Your task to perform on an android device: Open Google Chrome and open the bookmarks view Image 0: 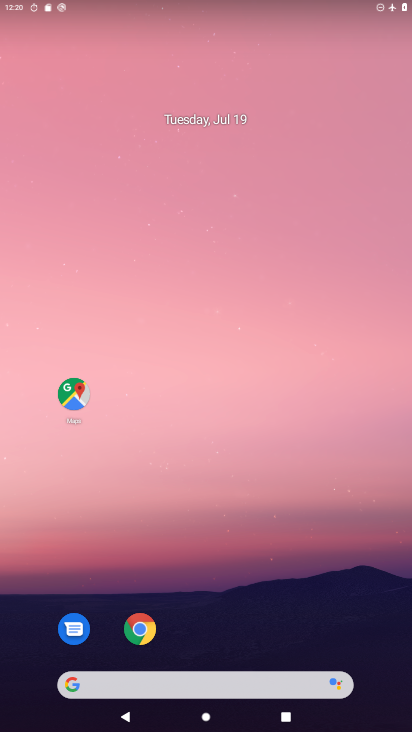
Step 0: drag from (302, 592) to (219, 109)
Your task to perform on an android device: Open Google Chrome and open the bookmarks view Image 1: 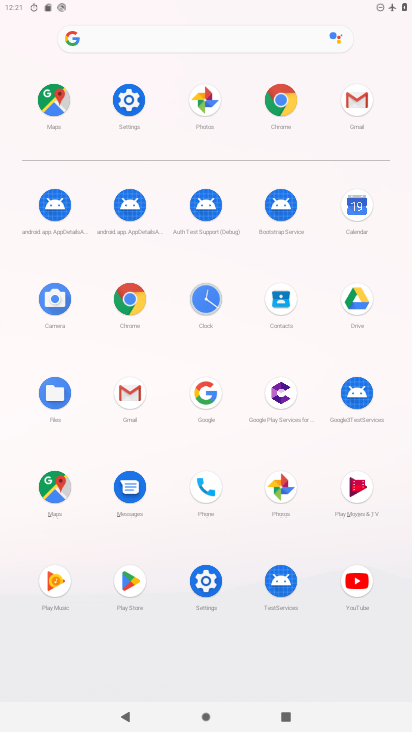
Step 1: click (280, 95)
Your task to perform on an android device: Open Google Chrome and open the bookmarks view Image 2: 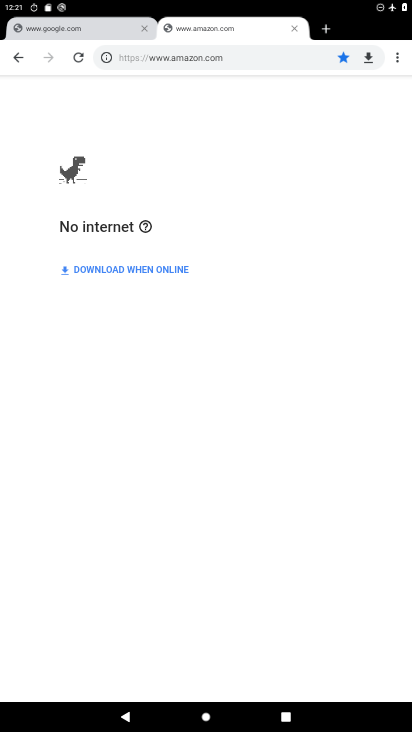
Step 2: task complete